Your task to perform on an android device: Search for vegetarian restaurants on Maps Image 0: 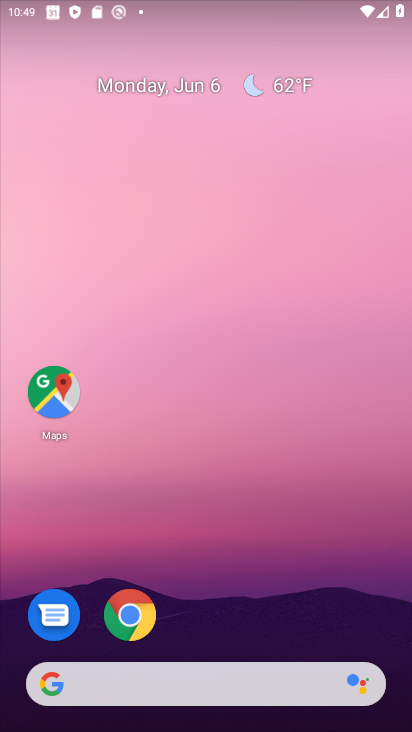
Step 0: drag from (268, 651) to (232, 187)
Your task to perform on an android device: Search for vegetarian restaurants on Maps Image 1: 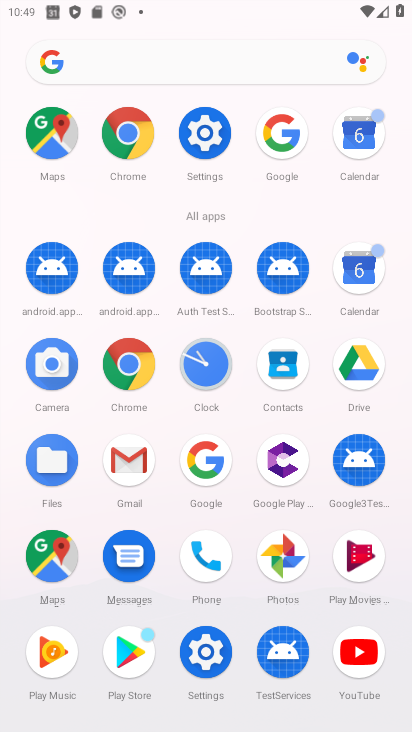
Step 1: click (60, 560)
Your task to perform on an android device: Search for vegetarian restaurants on Maps Image 2: 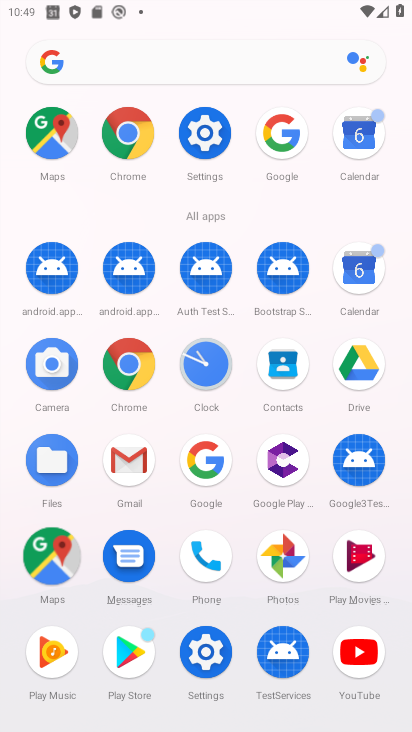
Step 2: click (60, 560)
Your task to perform on an android device: Search for vegetarian restaurants on Maps Image 3: 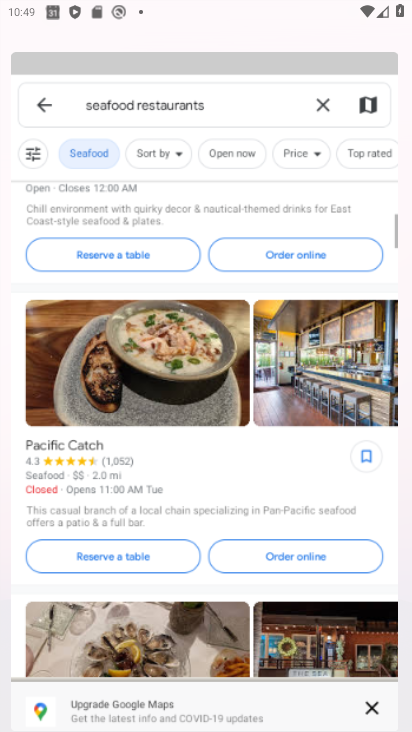
Step 3: click (60, 560)
Your task to perform on an android device: Search for vegetarian restaurants on Maps Image 4: 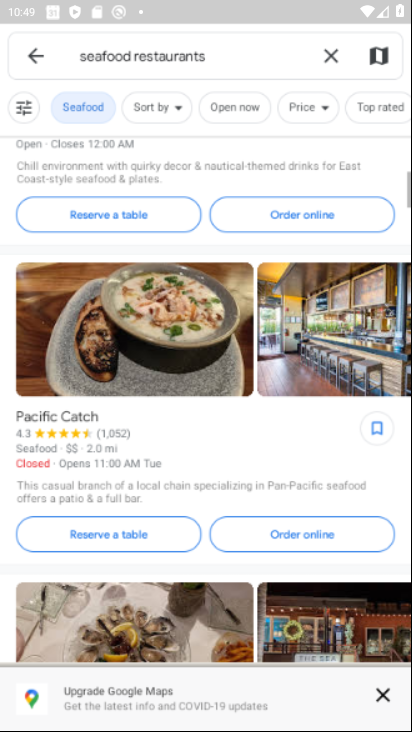
Step 4: click (58, 560)
Your task to perform on an android device: Search for vegetarian restaurants on Maps Image 5: 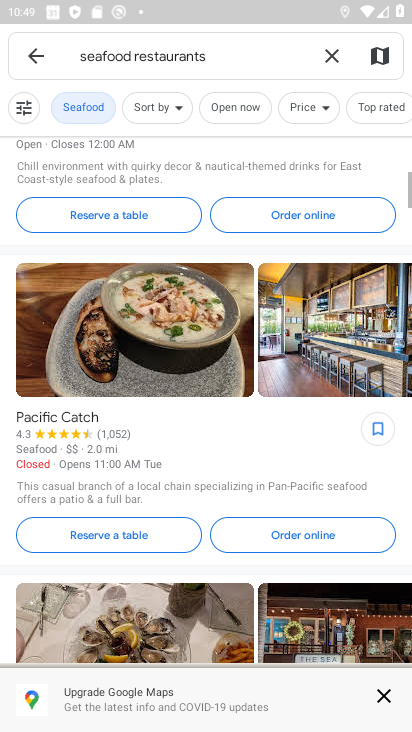
Step 5: click (326, 62)
Your task to perform on an android device: Search for vegetarian restaurants on Maps Image 6: 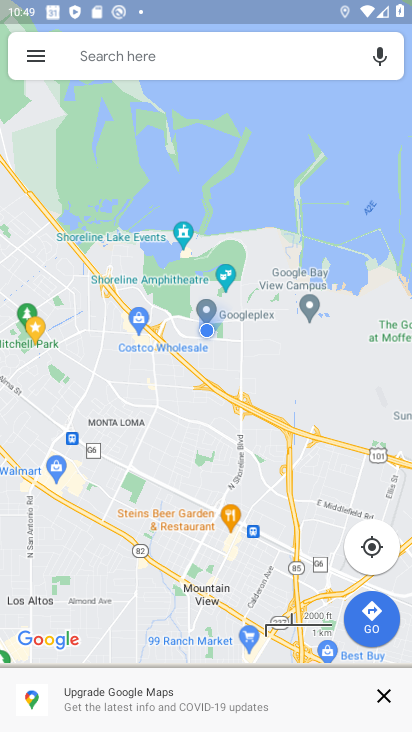
Step 6: click (79, 59)
Your task to perform on an android device: Search for vegetarian restaurants on Maps Image 7: 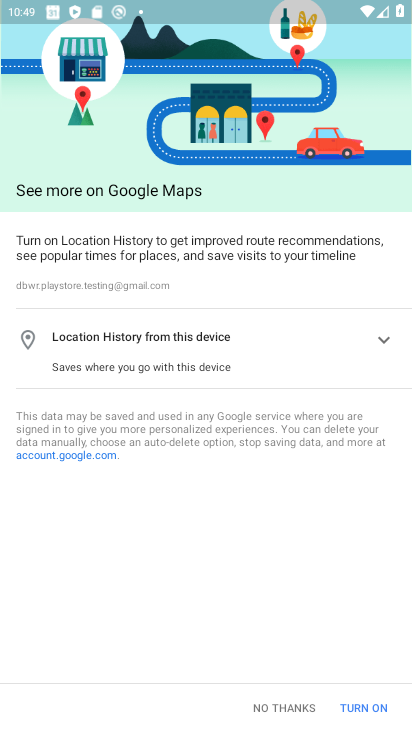
Step 7: press back button
Your task to perform on an android device: Search for vegetarian restaurants on Maps Image 8: 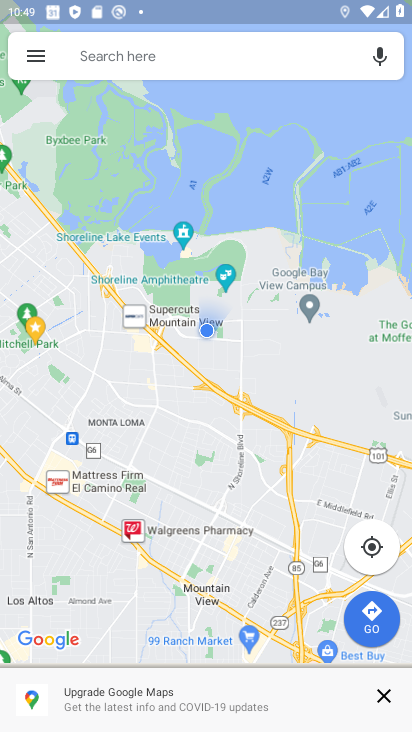
Step 8: click (81, 57)
Your task to perform on an android device: Search for vegetarian restaurants on Maps Image 9: 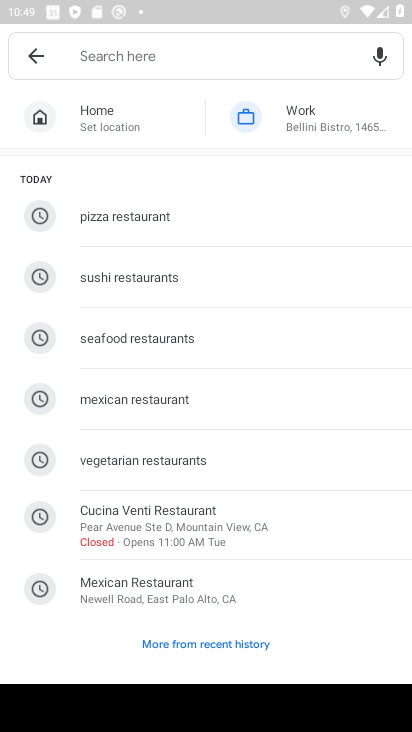
Step 9: click (147, 461)
Your task to perform on an android device: Search for vegetarian restaurants on Maps Image 10: 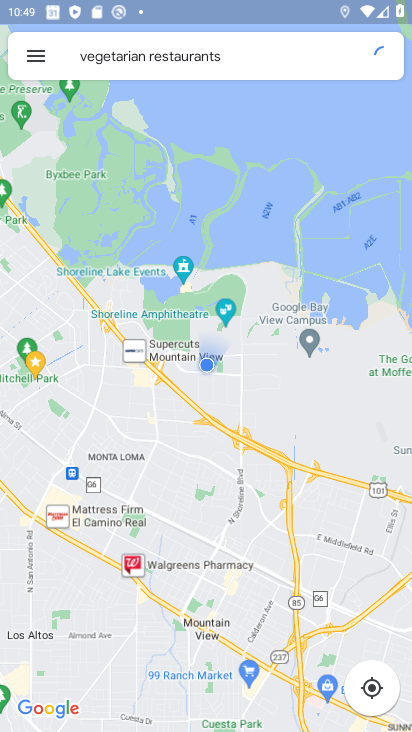
Step 10: task complete